Your task to perform on an android device: toggle show notifications on the lock screen Image 0: 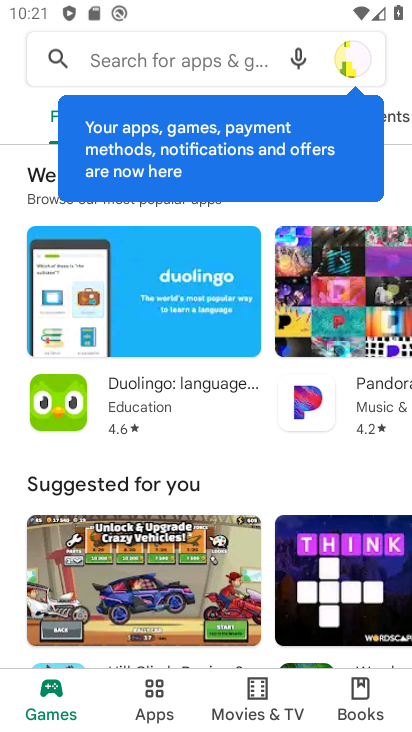
Step 0: press home button
Your task to perform on an android device: toggle show notifications on the lock screen Image 1: 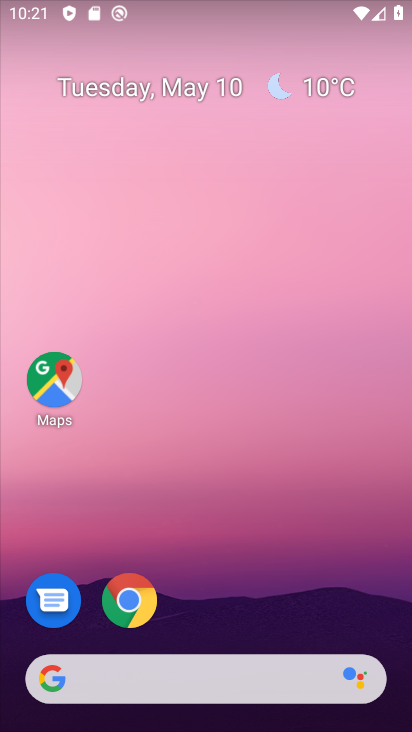
Step 1: drag from (259, 593) to (248, 163)
Your task to perform on an android device: toggle show notifications on the lock screen Image 2: 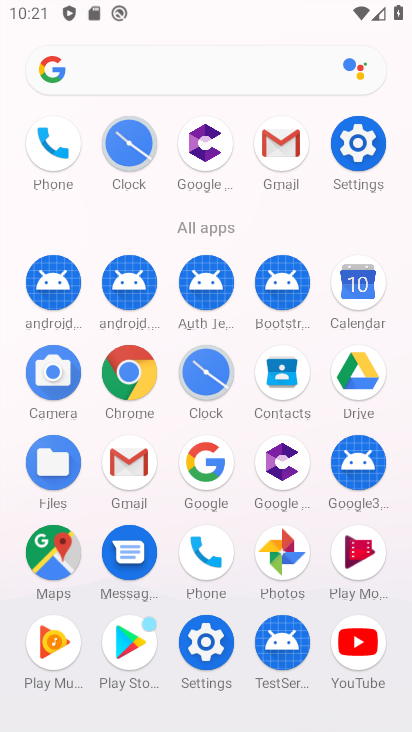
Step 2: click (349, 155)
Your task to perform on an android device: toggle show notifications on the lock screen Image 3: 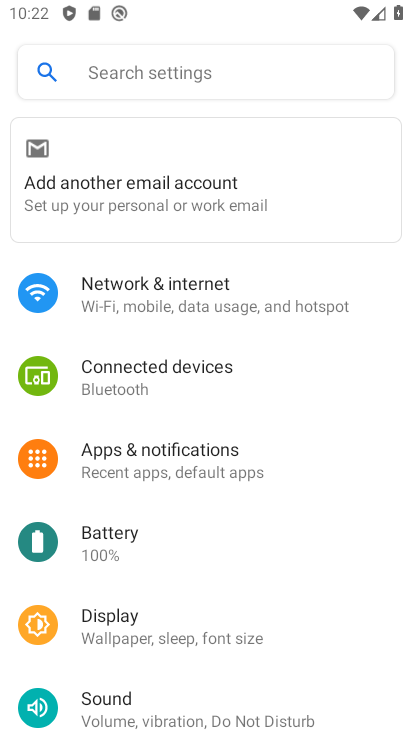
Step 3: click (183, 447)
Your task to perform on an android device: toggle show notifications on the lock screen Image 4: 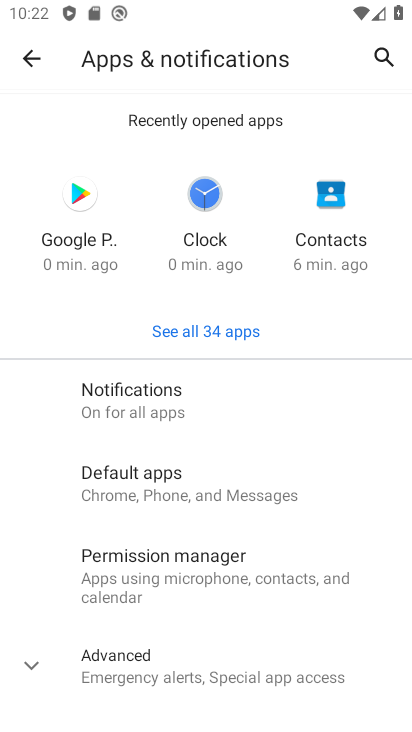
Step 4: drag from (242, 605) to (232, 311)
Your task to perform on an android device: toggle show notifications on the lock screen Image 5: 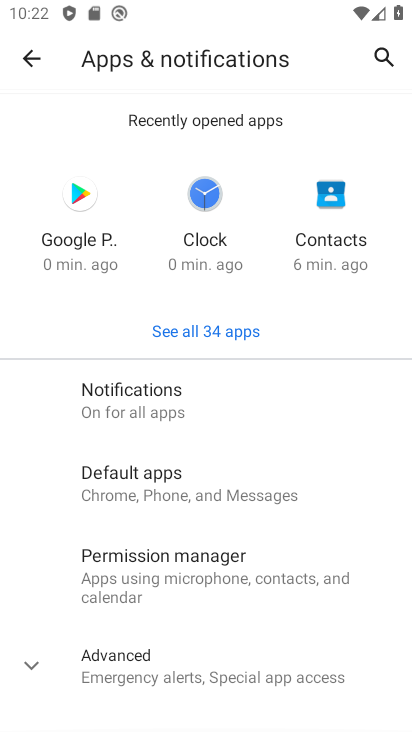
Step 5: click (202, 391)
Your task to perform on an android device: toggle show notifications on the lock screen Image 6: 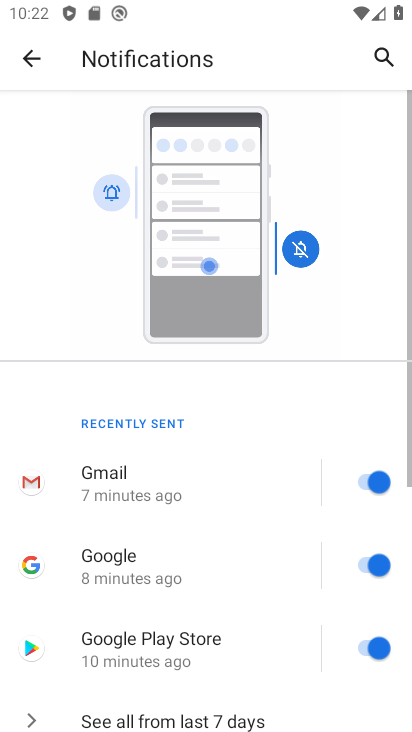
Step 6: drag from (236, 657) to (234, 172)
Your task to perform on an android device: toggle show notifications on the lock screen Image 7: 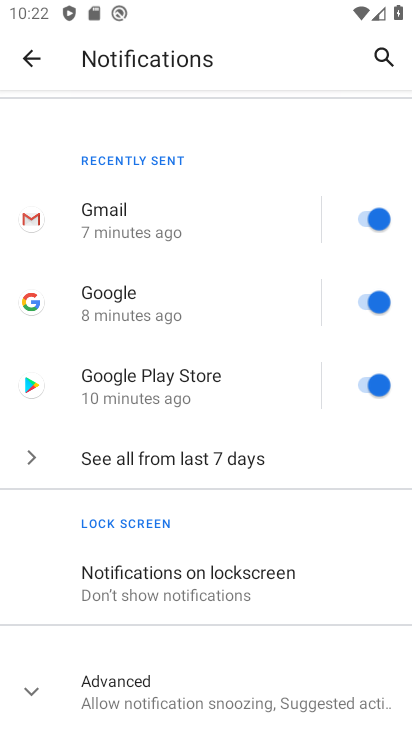
Step 7: click (245, 570)
Your task to perform on an android device: toggle show notifications on the lock screen Image 8: 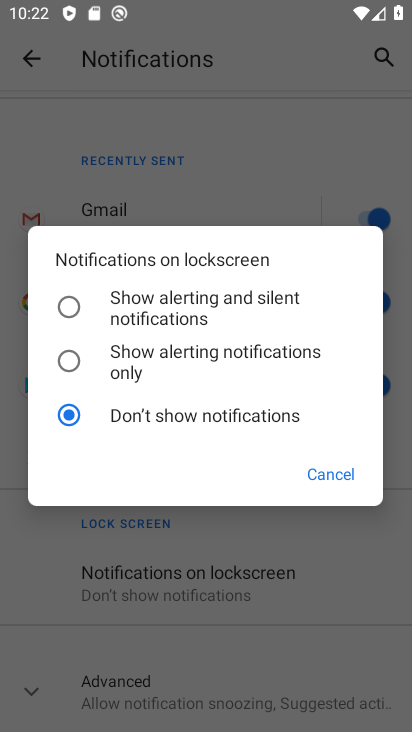
Step 8: click (169, 298)
Your task to perform on an android device: toggle show notifications on the lock screen Image 9: 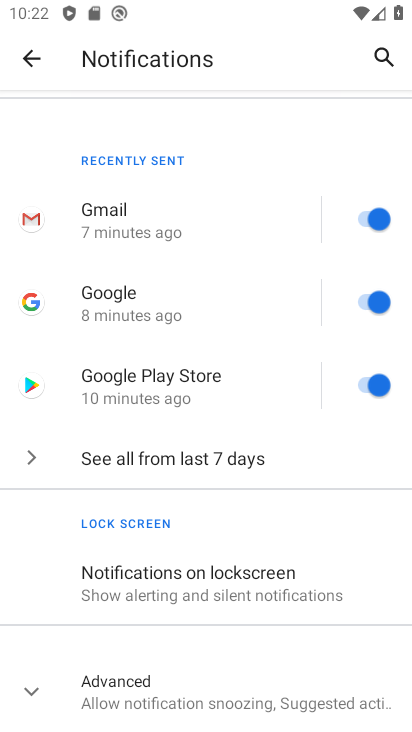
Step 9: task complete